Your task to perform on an android device: Open maps Image 0: 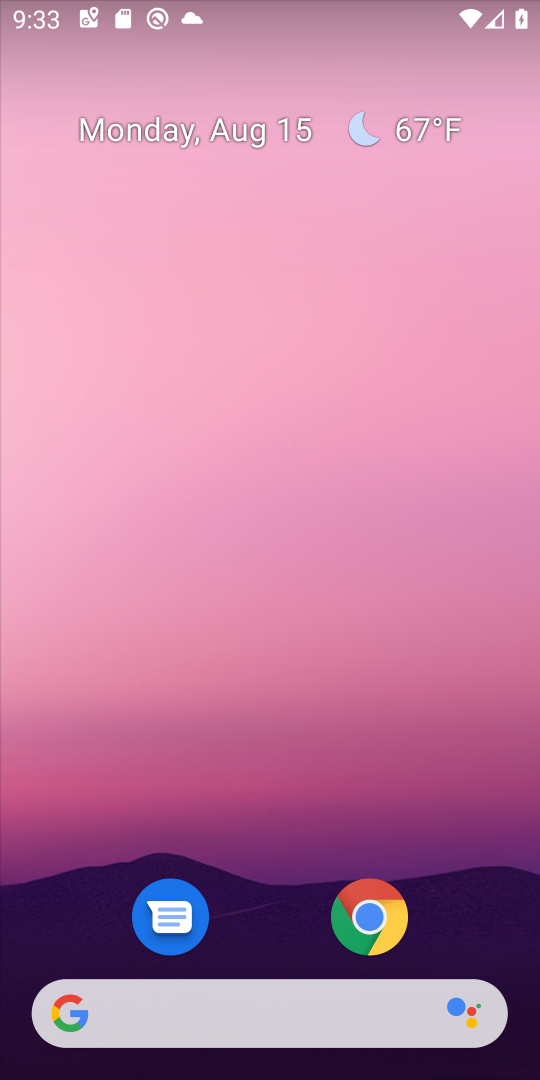
Step 0: drag from (257, 862) to (313, 19)
Your task to perform on an android device: Open maps Image 1: 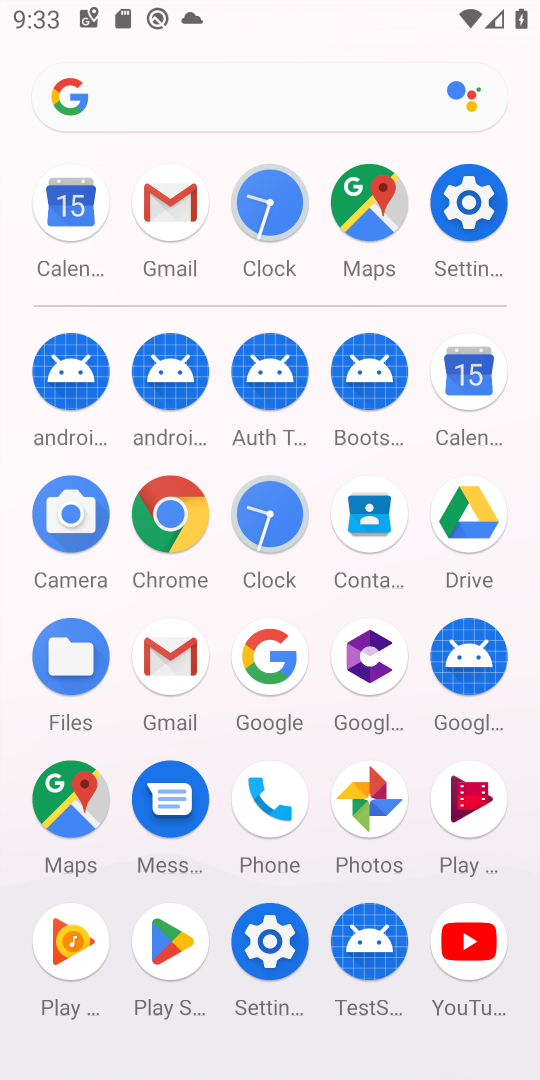
Step 1: click (367, 205)
Your task to perform on an android device: Open maps Image 2: 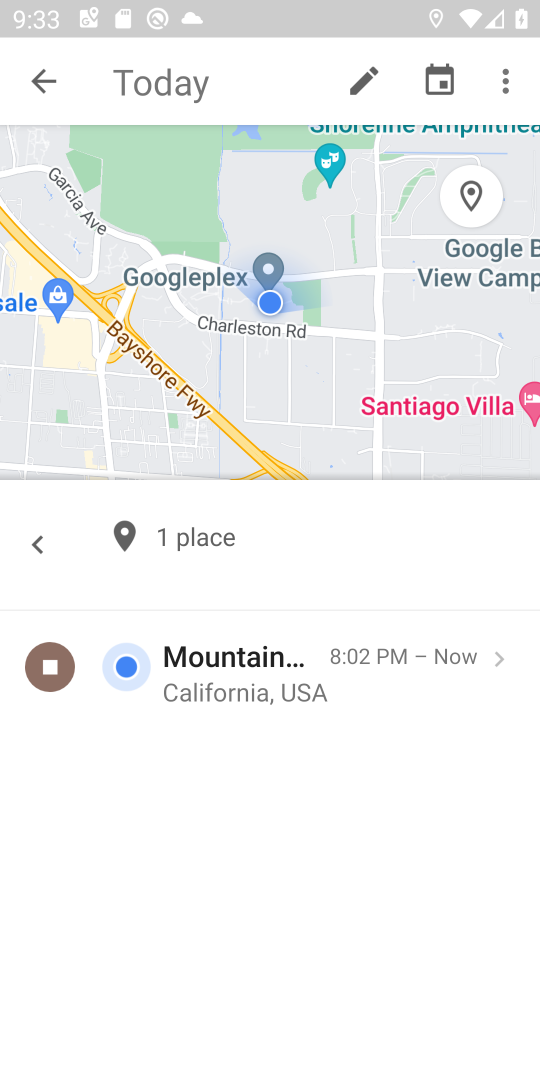
Step 2: click (45, 76)
Your task to perform on an android device: Open maps Image 3: 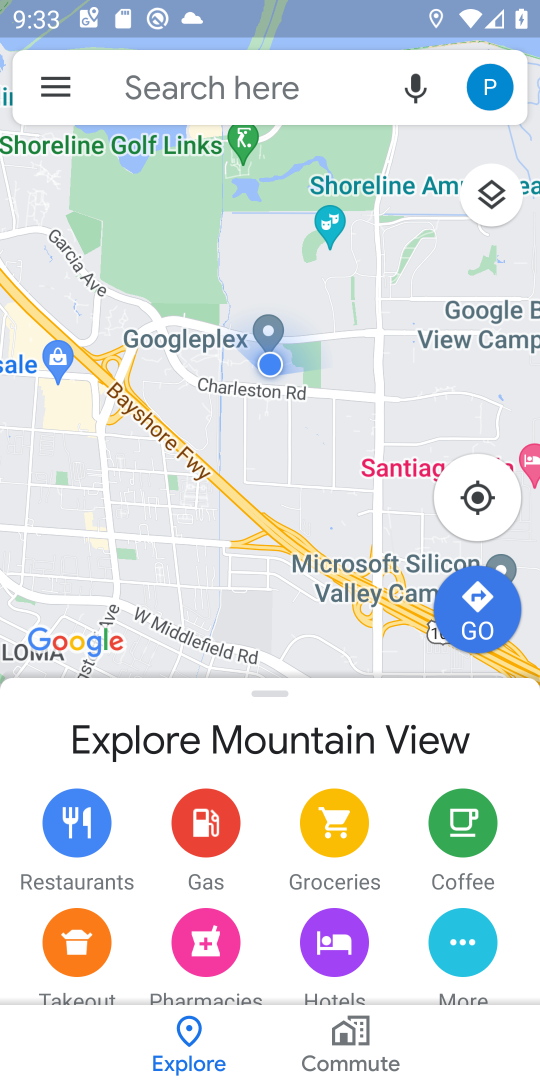
Step 3: task complete